Your task to perform on an android device: Open Google Maps and go to "Timeline" Image 0: 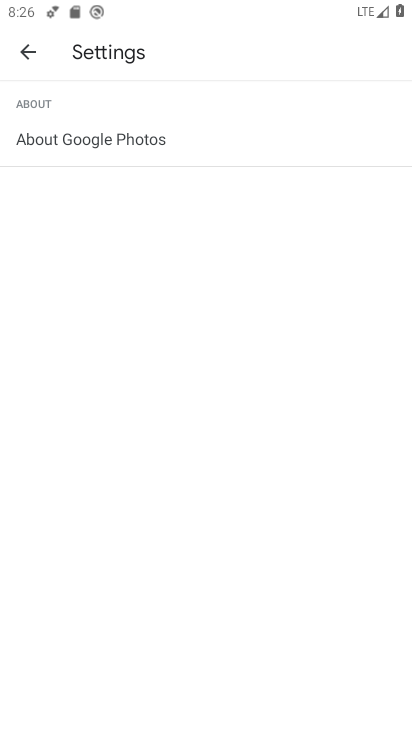
Step 0: press home button
Your task to perform on an android device: Open Google Maps and go to "Timeline" Image 1: 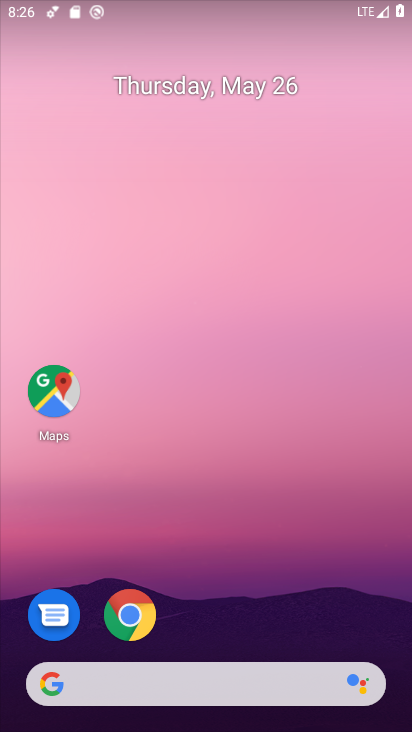
Step 1: click (40, 391)
Your task to perform on an android device: Open Google Maps and go to "Timeline" Image 2: 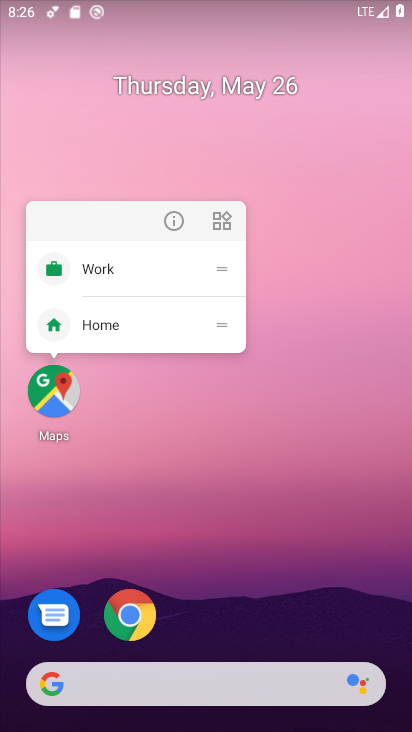
Step 2: click (49, 390)
Your task to perform on an android device: Open Google Maps and go to "Timeline" Image 3: 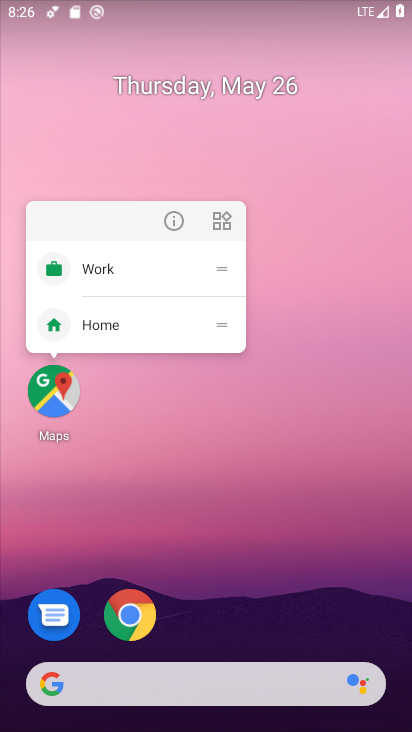
Step 3: click (53, 388)
Your task to perform on an android device: Open Google Maps and go to "Timeline" Image 4: 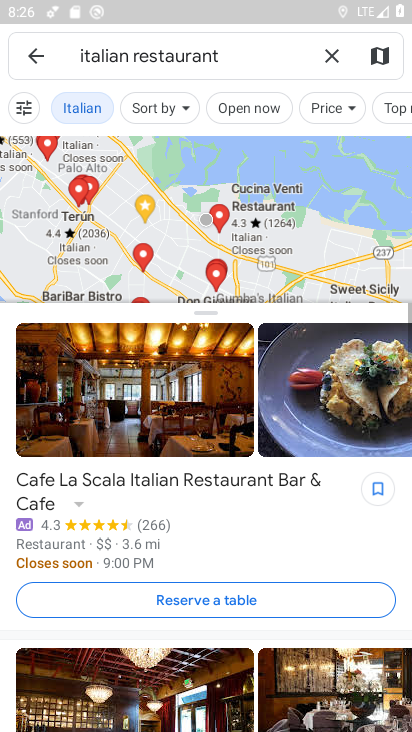
Step 4: click (329, 47)
Your task to perform on an android device: Open Google Maps and go to "Timeline" Image 5: 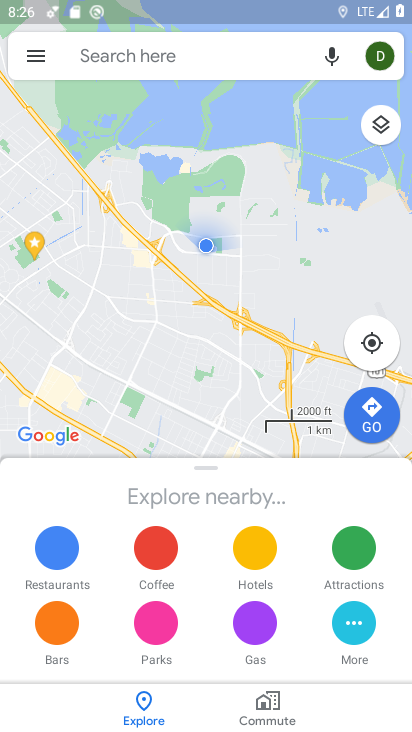
Step 5: click (36, 54)
Your task to perform on an android device: Open Google Maps and go to "Timeline" Image 6: 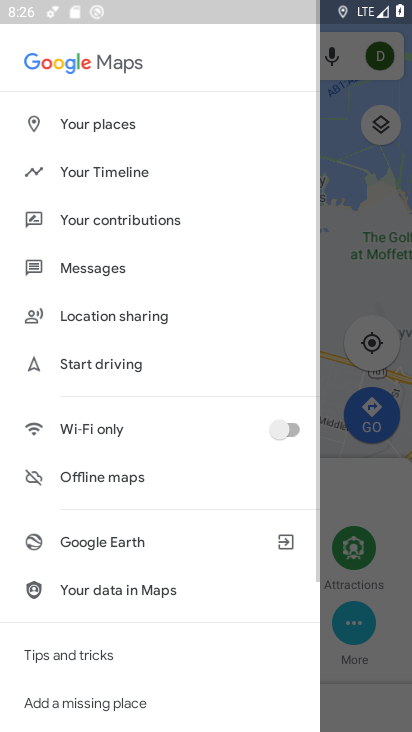
Step 6: click (106, 171)
Your task to perform on an android device: Open Google Maps and go to "Timeline" Image 7: 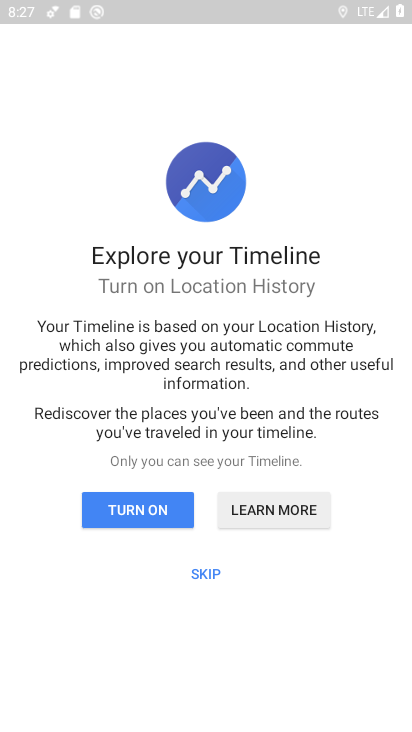
Step 7: click (200, 573)
Your task to perform on an android device: Open Google Maps and go to "Timeline" Image 8: 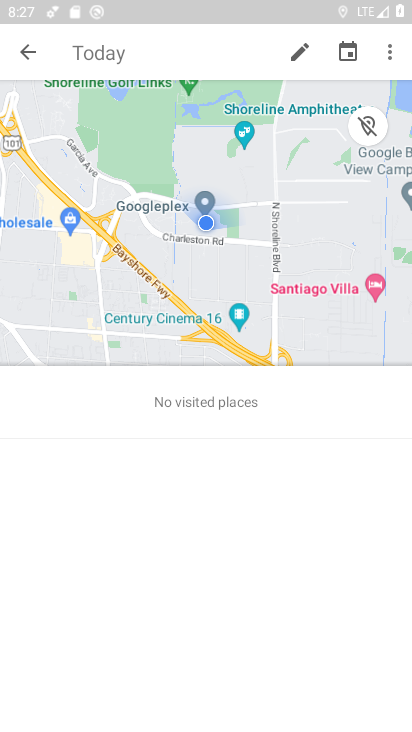
Step 8: task complete